Your task to perform on an android device: toggle location history Image 0: 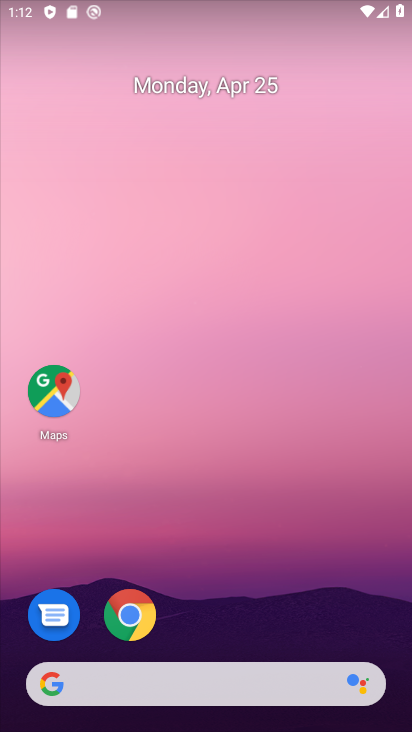
Step 0: drag from (254, 554) to (227, 2)
Your task to perform on an android device: toggle location history Image 1: 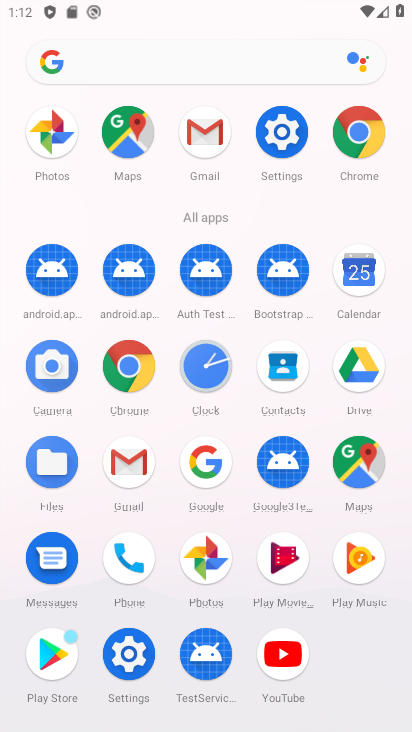
Step 1: click (281, 128)
Your task to perform on an android device: toggle location history Image 2: 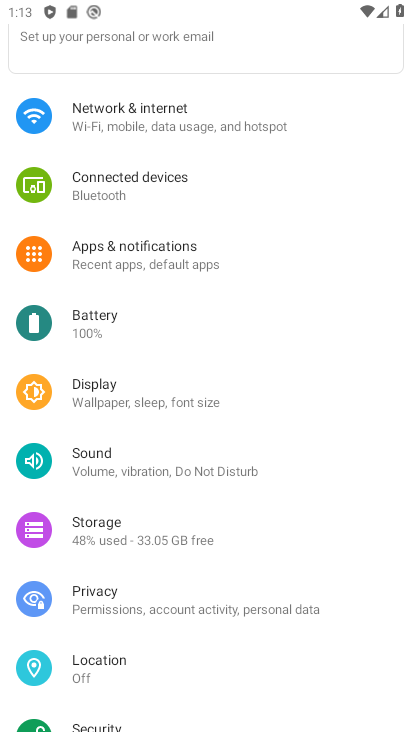
Step 2: drag from (192, 447) to (245, 343)
Your task to perform on an android device: toggle location history Image 3: 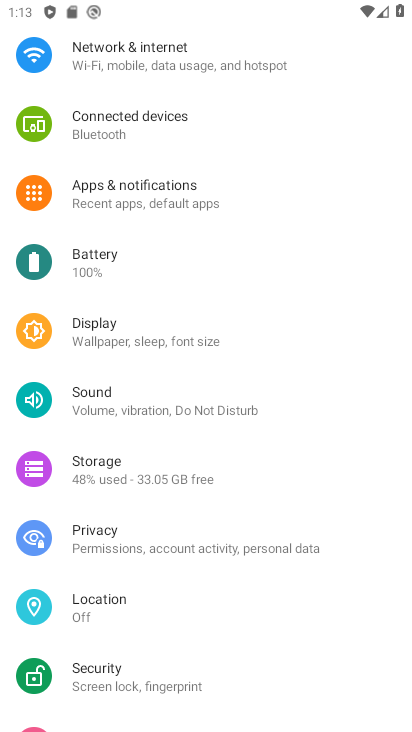
Step 3: drag from (193, 497) to (287, 383)
Your task to perform on an android device: toggle location history Image 4: 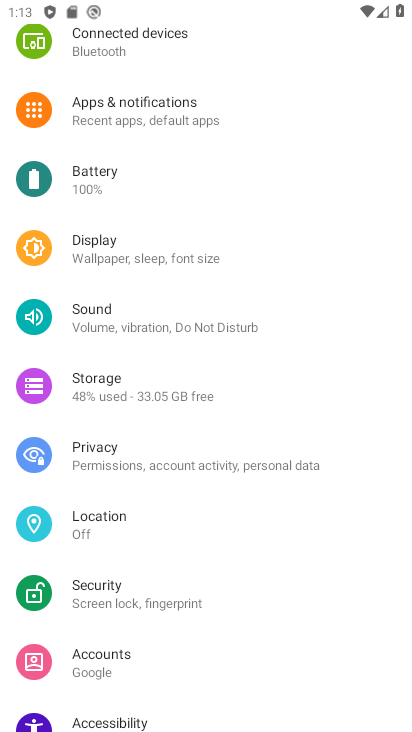
Step 4: drag from (206, 540) to (303, 413)
Your task to perform on an android device: toggle location history Image 5: 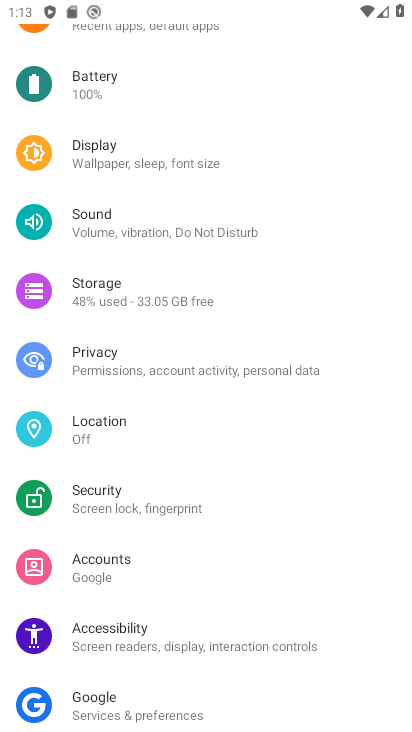
Step 5: drag from (214, 565) to (317, 410)
Your task to perform on an android device: toggle location history Image 6: 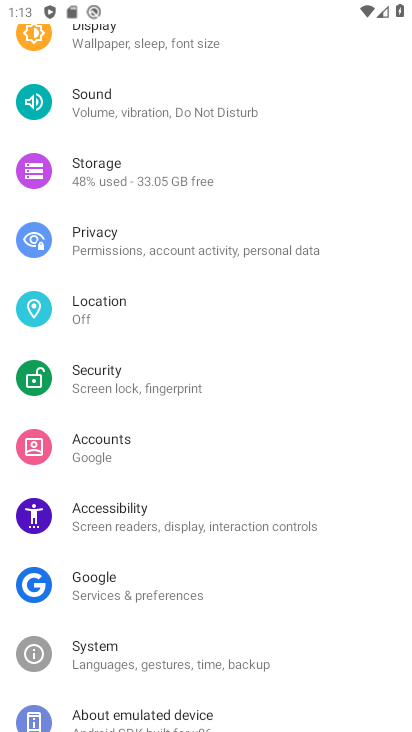
Step 6: click (117, 303)
Your task to perform on an android device: toggle location history Image 7: 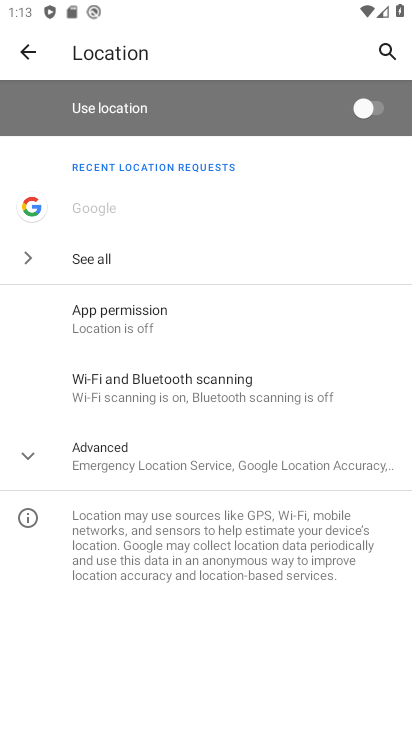
Step 7: click (167, 463)
Your task to perform on an android device: toggle location history Image 8: 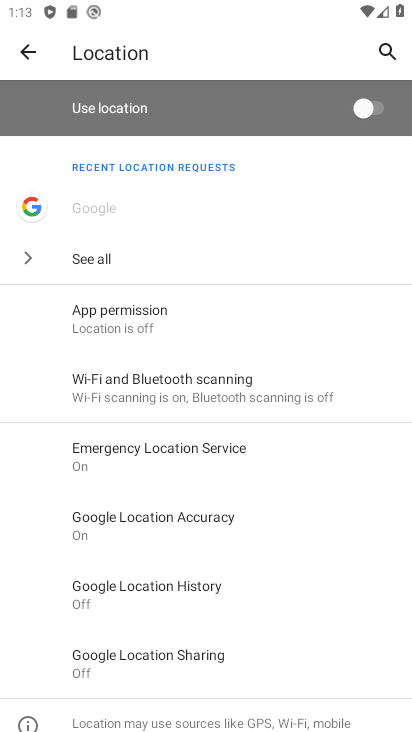
Step 8: click (166, 589)
Your task to perform on an android device: toggle location history Image 9: 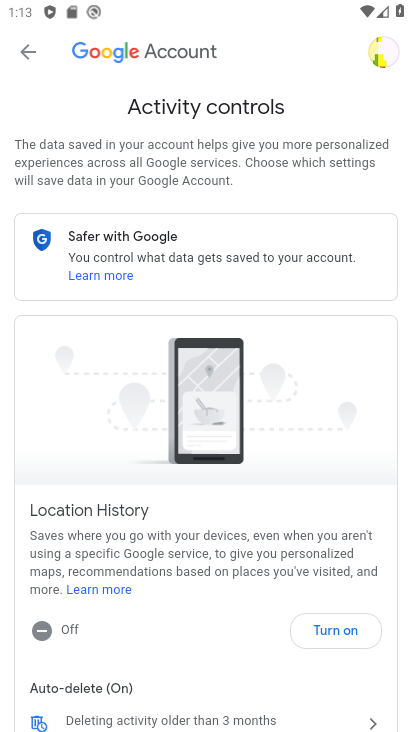
Step 9: click (342, 628)
Your task to perform on an android device: toggle location history Image 10: 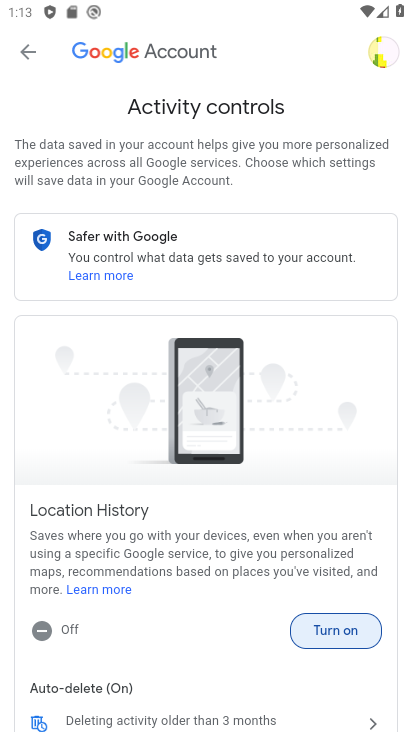
Step 10: click (339, 627)
Your task to perform on an android device: toggle location history Image 11: 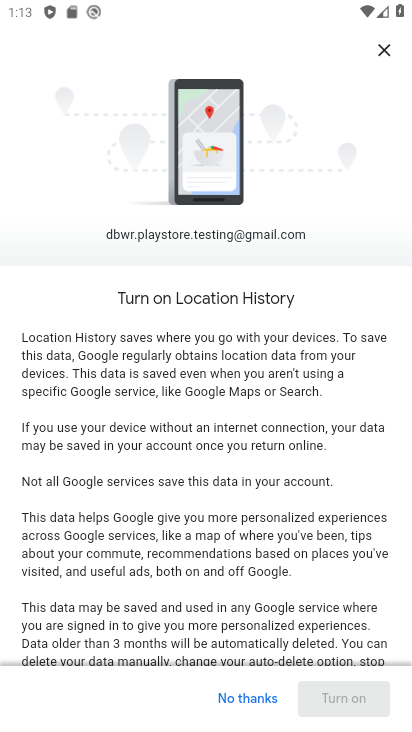
Step 11: click (247, 693)
Your task to perform on an android device: toggle location history Image 12: 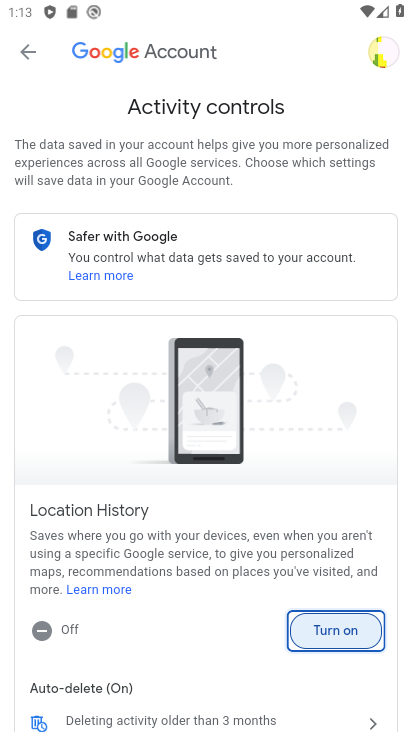
Step 12: task complete